Your task to perform on an android device: remove spam from my inbox in the gmail app Image 0: 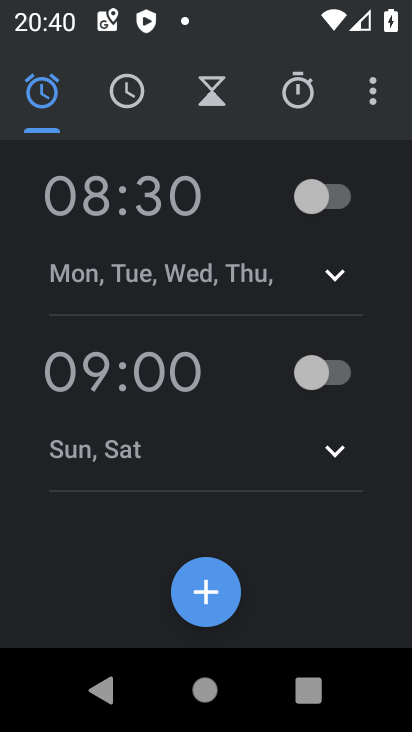
Step 0: press home button
Your task to perform on an android device: remove spam from my inbox in the gmail app Image 1: 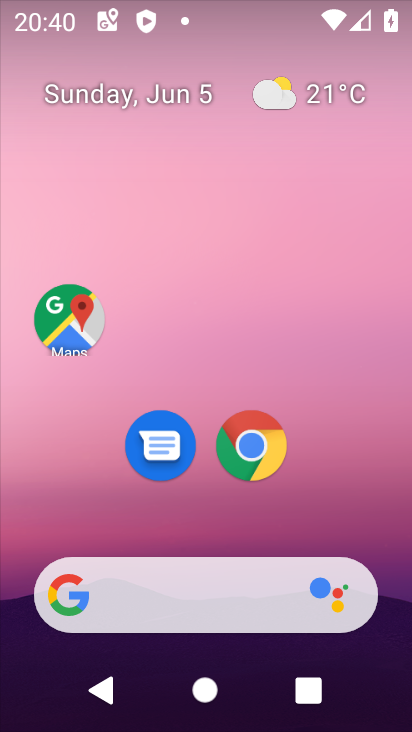
Step 1: drag from (340, 489) to (341, 136)
Your task to perform on an android device: remove spam from my inbox in the gmail app Image 2: 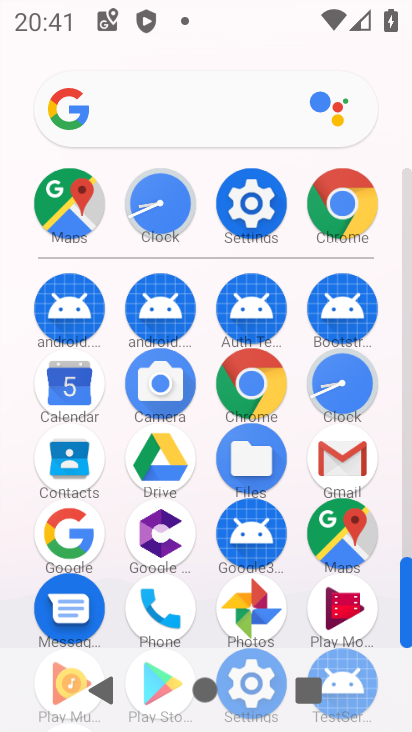
Step 2: click (360, 459)
Your task to perform on an android device: remove spam from my inbox in the gmail app Image 3: 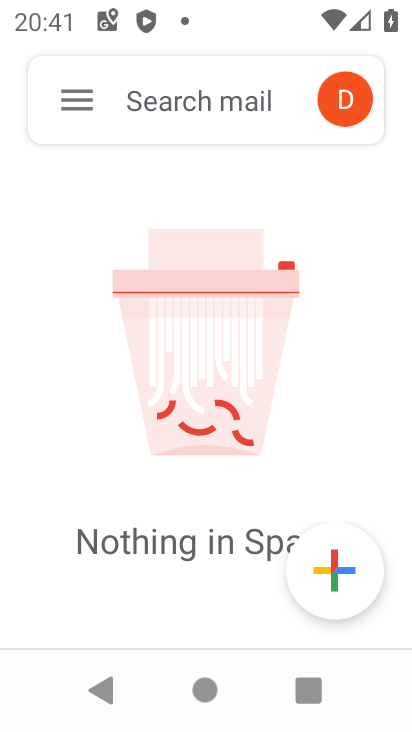
Step 3: click (68, 111)
Your task to perform on an android device: remove spam from my inbox in the gmail app Image 4: 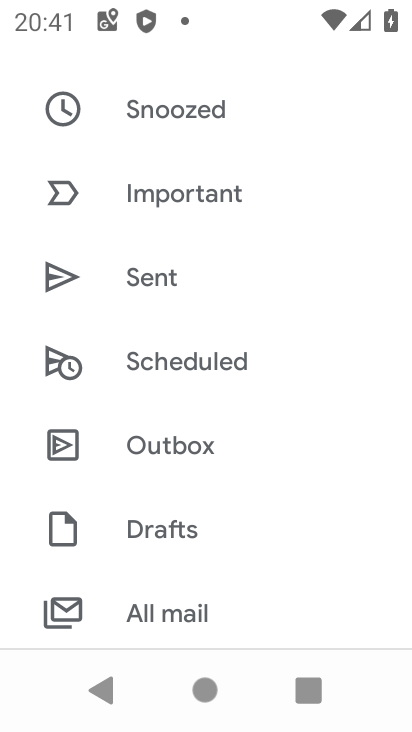
Step 4: drag from (338, 595) to (278, 110)
Your task to perform on an android device: remove spam from my inbox in the gmail app Image 5: 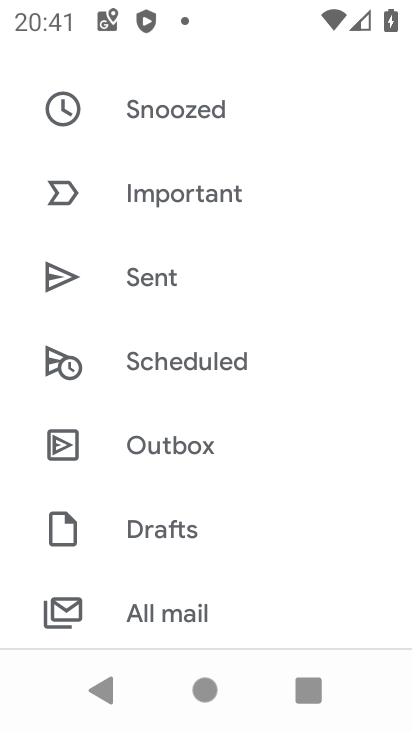
Step 5: drag from (316, 545) to (352, 66)
Your task to perform on an android device: remove spam from my inbox in the gmail app Image 6: 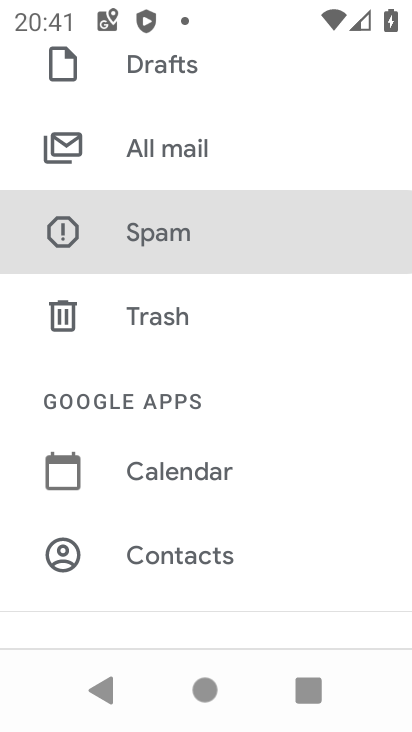
Step 6: click (266, 235)
Your task to perform on an android device: remove spam from my inbox in the gmail app Image 7: 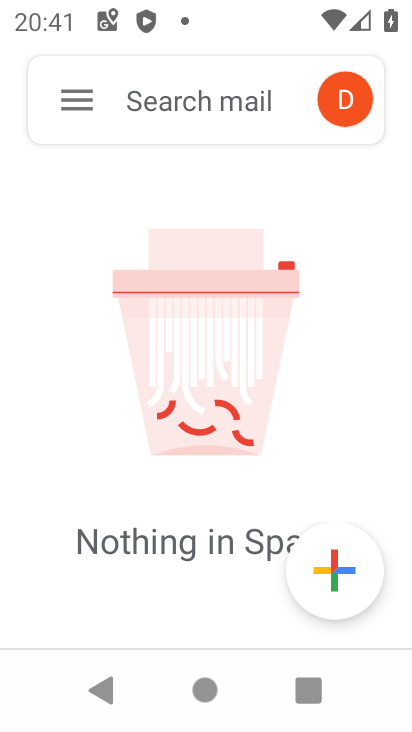
Step 7: click (270, 300)
Your task to perform on an android device: remove spam from my inbox in the gmail app Image 8: 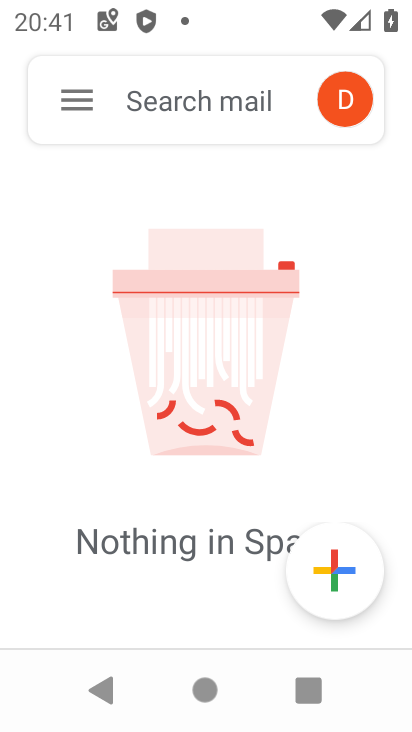
Step 8: task complete